Your task to perform on an android device: refresh tabs in the chrome app Image 0: 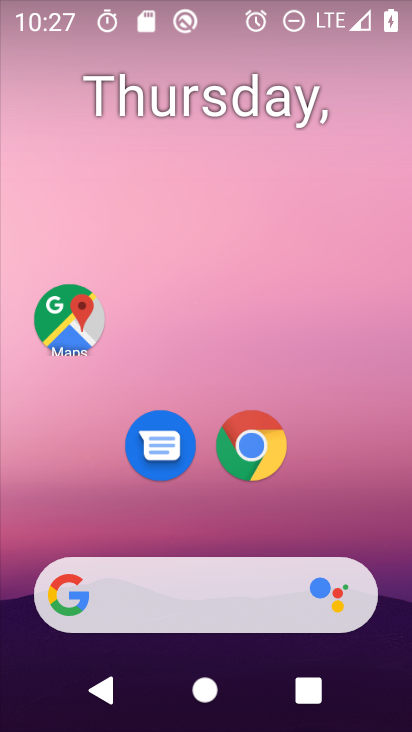
Step 0: drag from (200, 541) to (290, 70)
Your task to perform on an android device: refresh tabs in the chrome app Image 1: 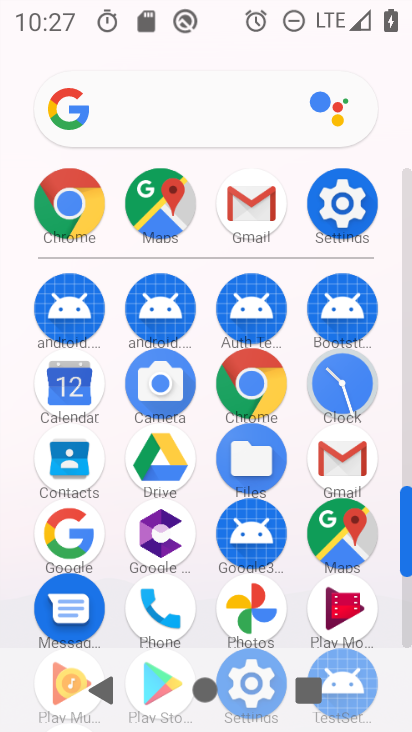
Step 1: click (249, 375)
Your task to perform on an android device: refresh tabs in the chrome app Image 2: 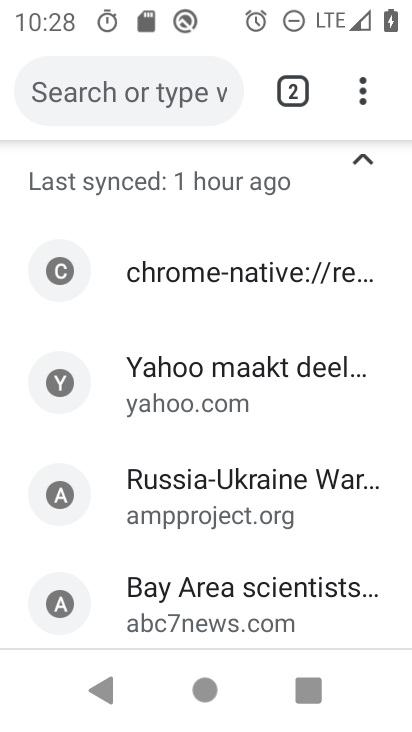
Step 2: click (367, 89)
Your task to perform on an android device: refresh tabs in the chrome app Image 3: 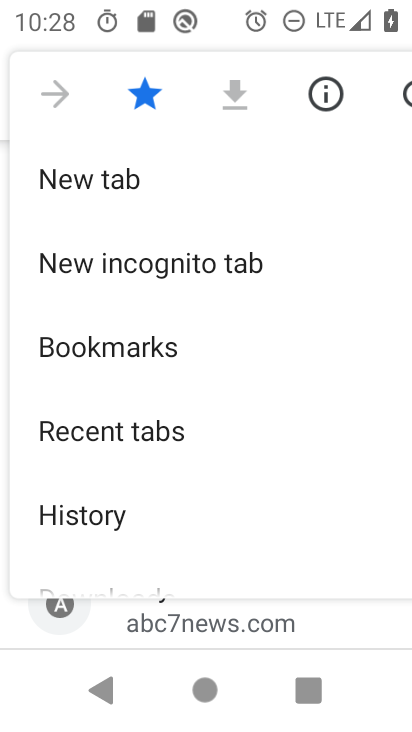
Step 3: click (410, 87)
Your task to perform on an android device: refresh tabs in the chrome app Image 4: 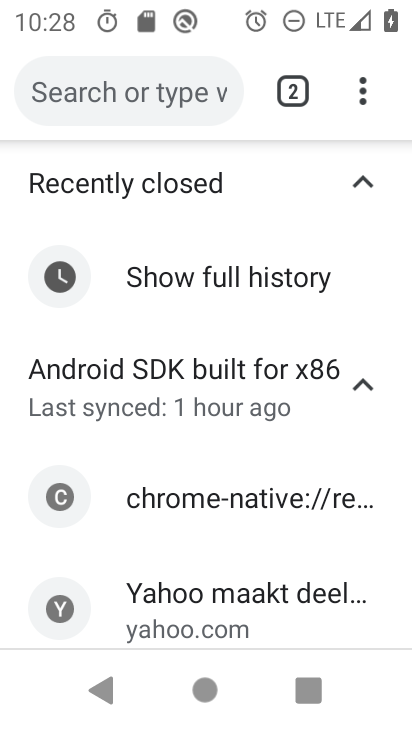
Step 4: task complete